Your task to perform on an android device: Go to battery settings Image 0: 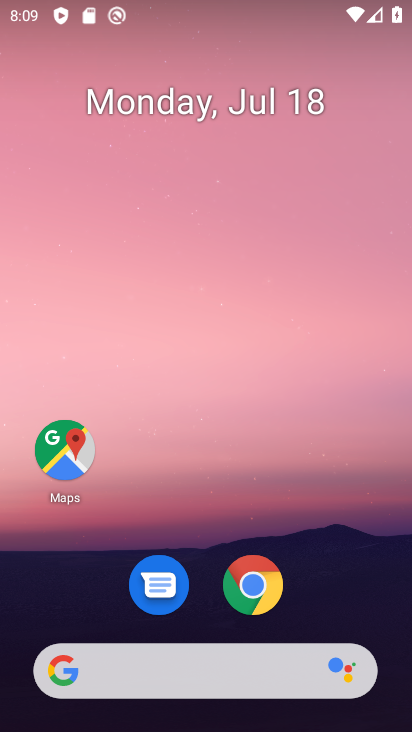
Step 0: press home button
Your task to perform on an android device: Go to battery settings Image 1: 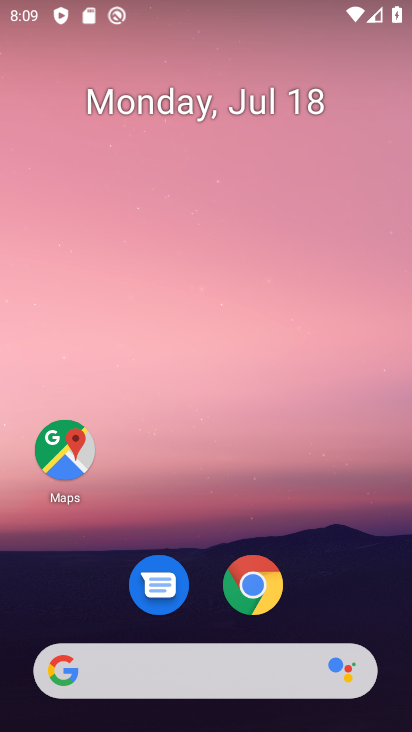
Step 1: click (411, 539)
Your task to perform on an android device: Go to battery settings Image 2: 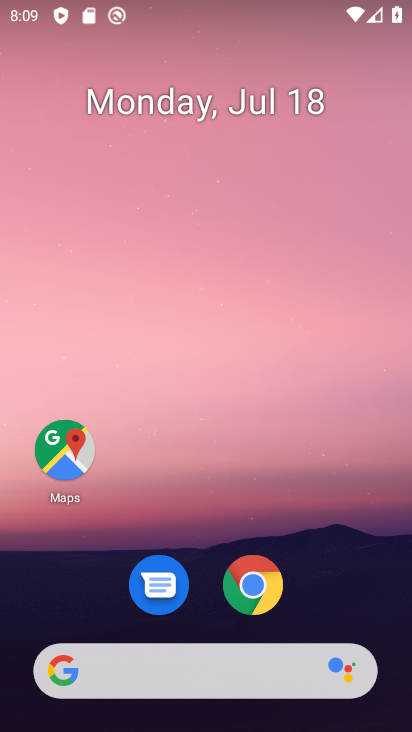
Step 2: drag from (190, 675) to (318, 22)
Your task to perform on an android device: Go to battery settings Image 3: 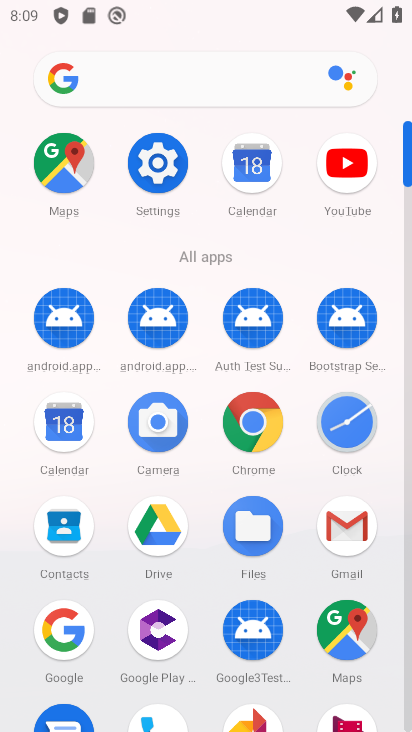
Step 3: click (154, 161)
Your task to perform on an android device: Go to battery settings Image 4: 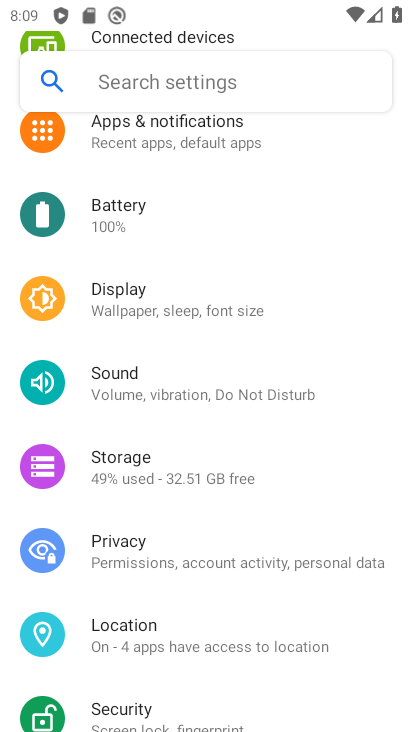
Step 4: click (124, 210)
Your task to perform on an android device: Go to battery settings Image 5: 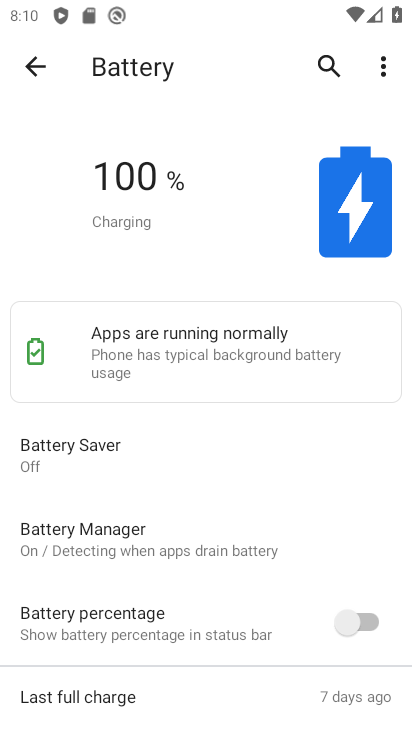
Step 5: task complete